Your task to perform on an android device: Go to Google Image 0: 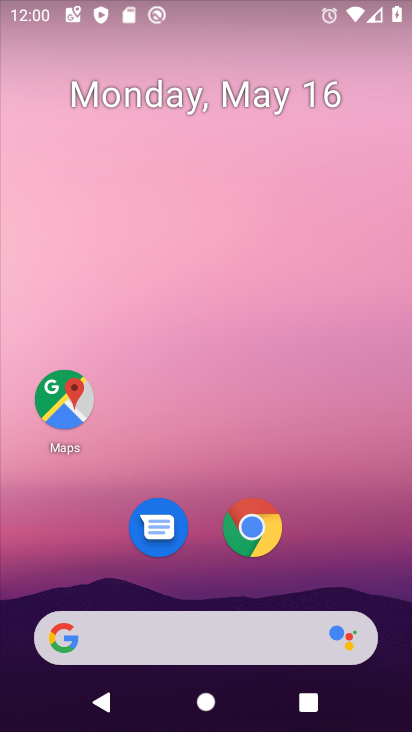
Step 0: click (247, 534)
Your task to perform on an android device: Go to Google Image 1: 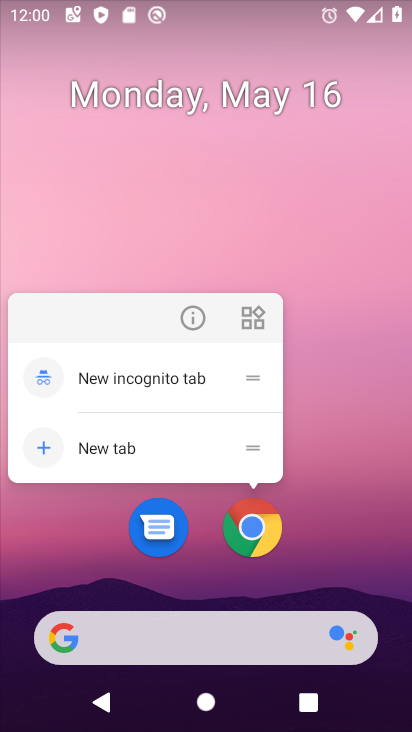
Step 1: click (132, 421)
Your task to perform on an android device: Go to Google Image 2: 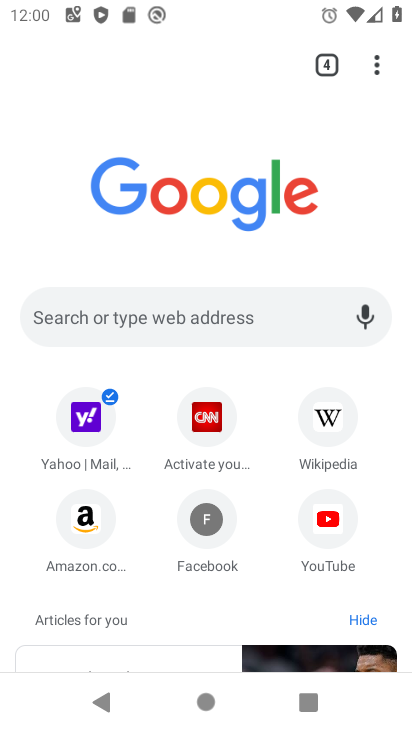
Step 2: click (169, 324)
Your task to perform on an android device: Go to Google Image 3: 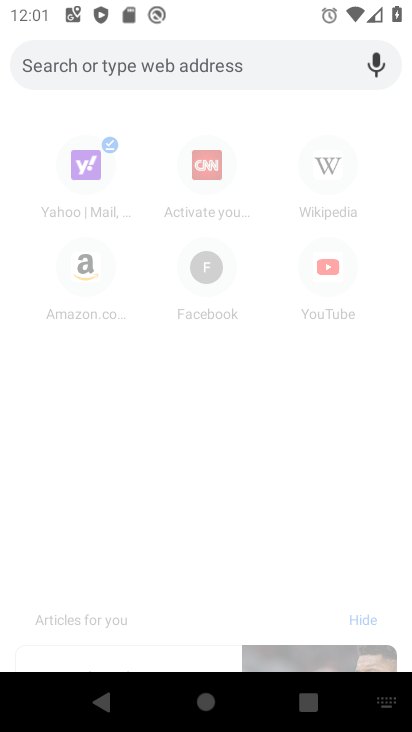
Step 3: type "google.com"
Your task to perform on an android device: Go to Google Image 4: 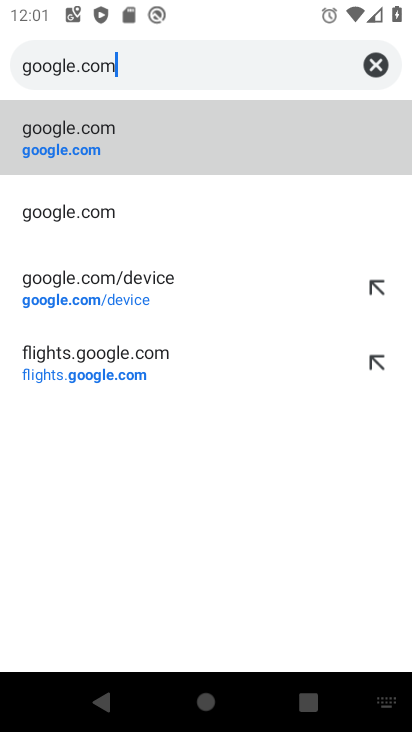
Step 4: click (60, 149)
Your task to perform on an android device: Go to Google Image 5: 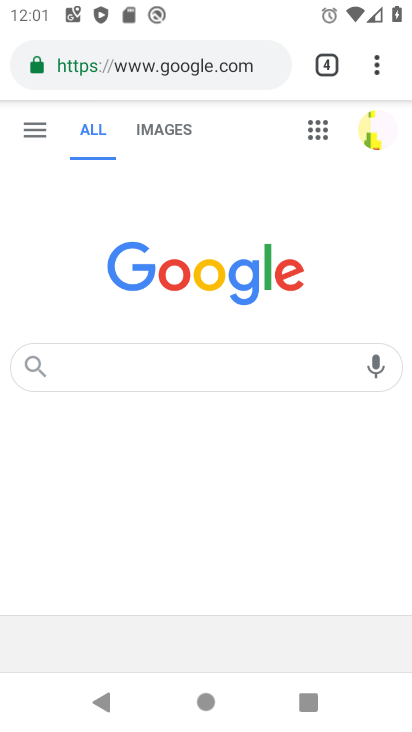
Step 5: task complete